Your task to perform on an android device: Turn off the flashlight Image 0: 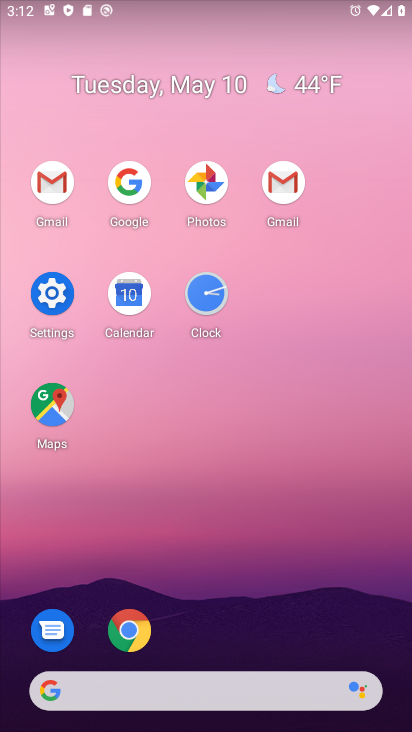
Step 0: drag from (303, 1) to (276, 409)
Your task to perform on an android device: Turn off the flashlight Image 1: 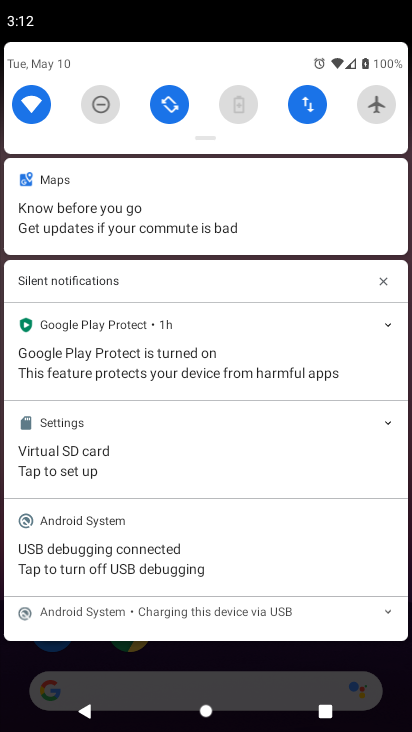
Step 1: task complete